Your task to perform on an android device: Open the map Image 0: 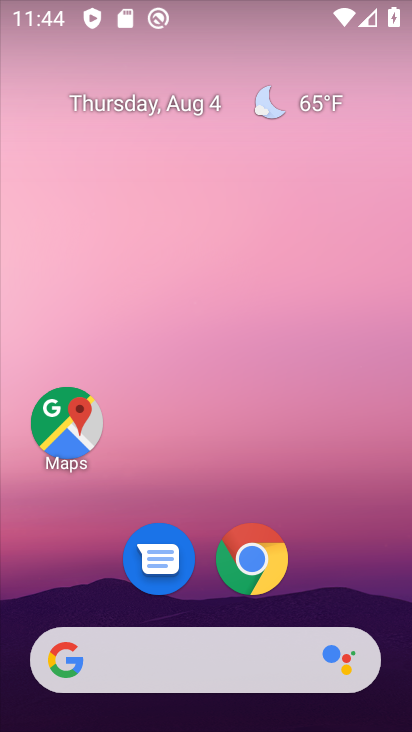
Step 0: click (59, 423)
Your task to perform on an android device: Open the map Image 1: 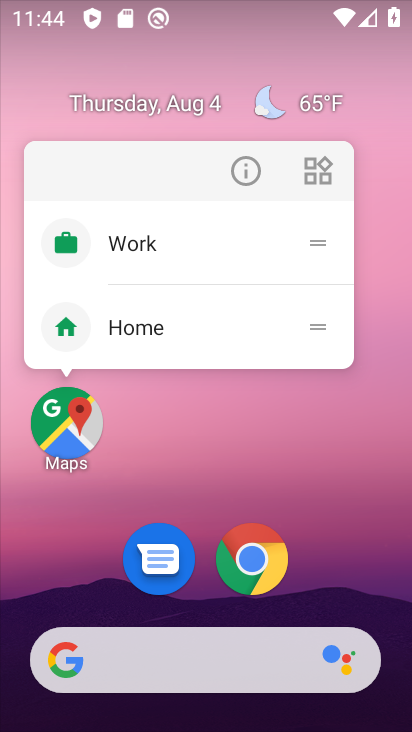
Step 1: click (59, 423)
Your task to perform on an android device: Open the map Image 2: 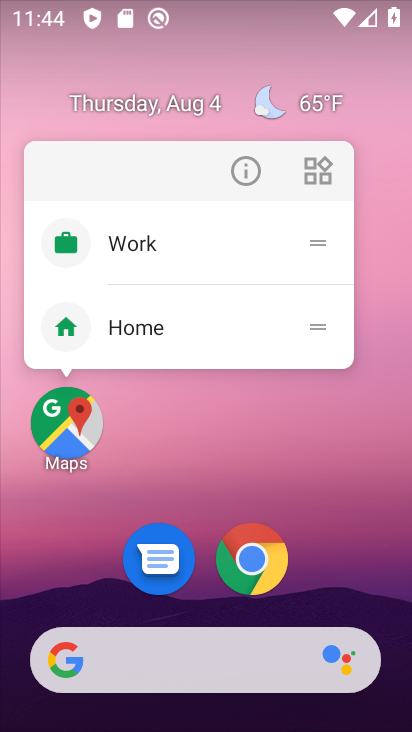
Step 2: click (59, 423)
Your task to perform on an android device: Open the map Image 3: 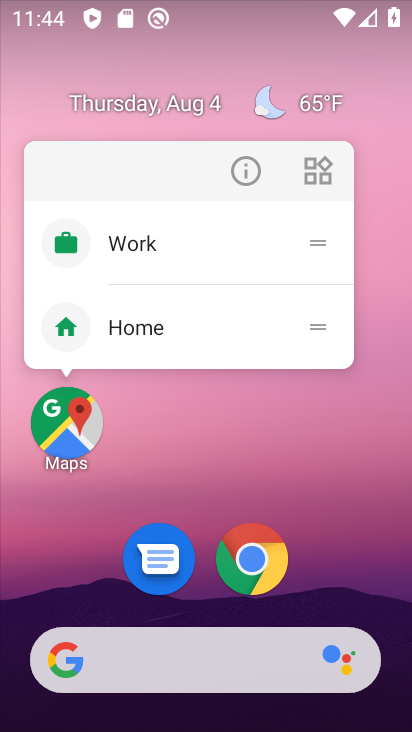
Step 3: click (31, 428)
Your task to perform on an android device: Open the map Image 4: 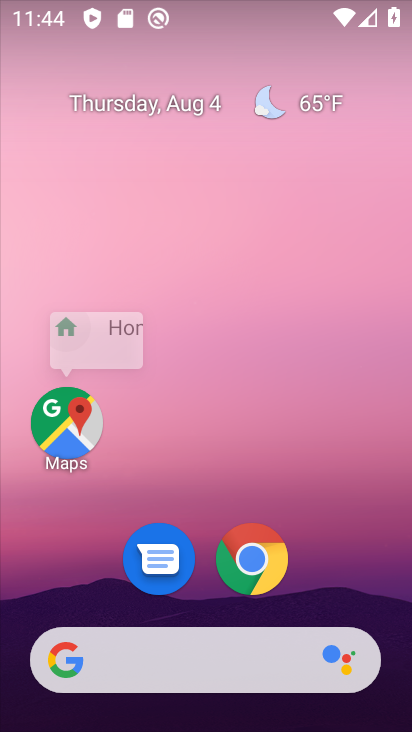
Step 4: click (31, 428)
Your task to perform on an android device: Open the map Image 5: 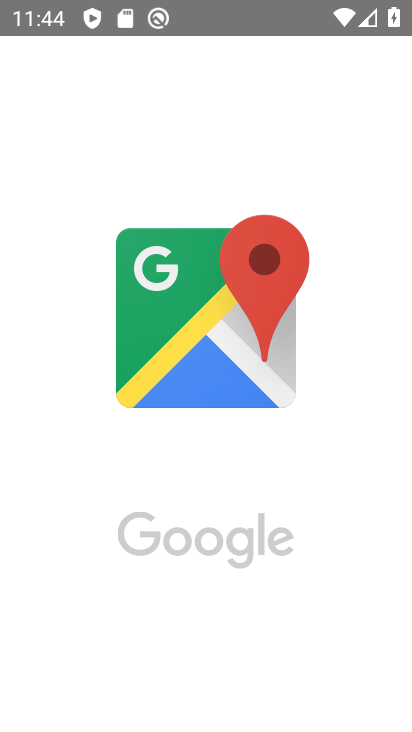
Step 5: click (103, 441)
Your task to perform on an android device: Open the map Image 6: 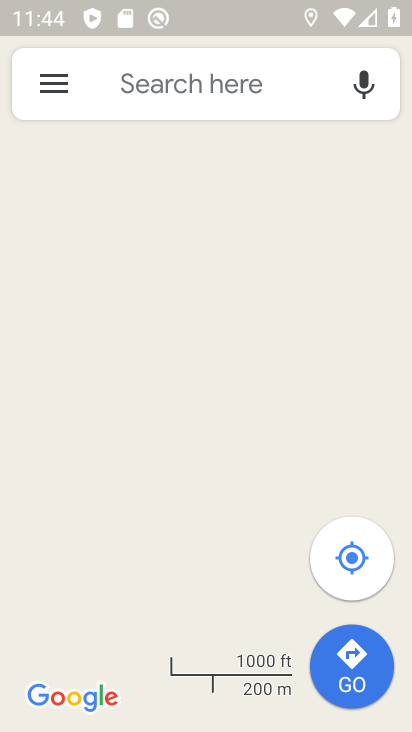
Step 6: task complete